Your task to perform on an android device: Open battery settings Image 0: 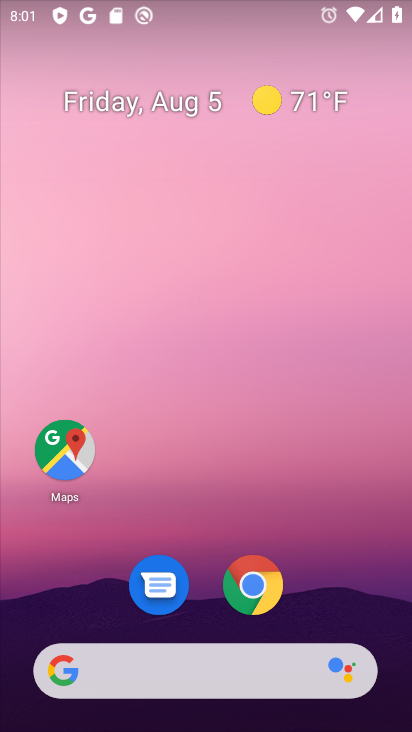
Step 0: drag from (329, 518) to (331, 11)
Your task to perform on an android device: Open battery settings Image 1: 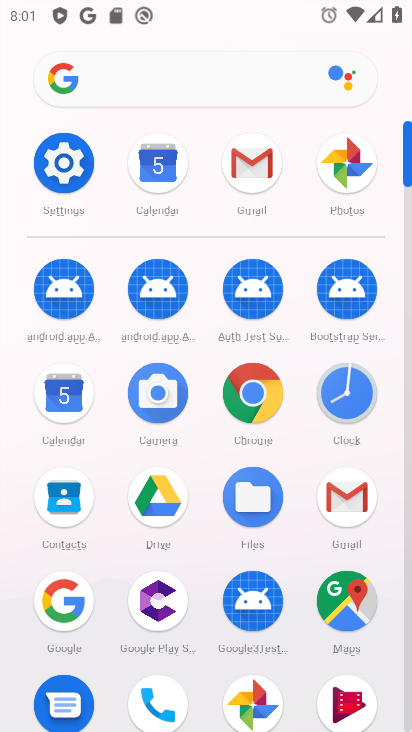
Step 1: click (77, 169)
Your task to perform on an android device: Open battery settings Image 2: 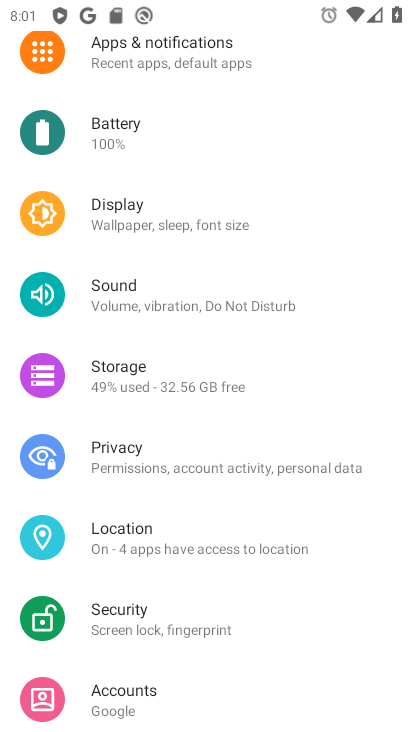
Step 2: click (123, 116)
Your task to perform on an android device: Open battery settings Image 3: 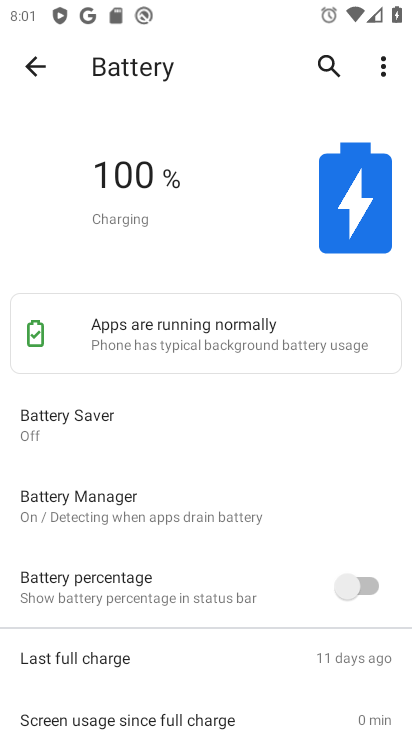
Step 3: task complete